Your task to perform on an android device: open wifi settings Image 0: 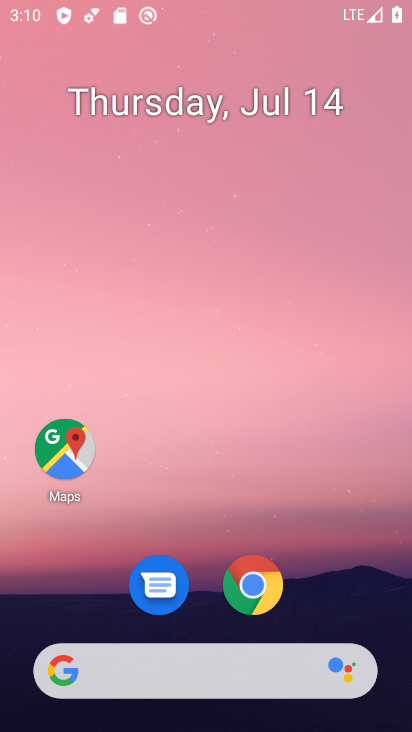
Step 0: drag from (352, 540) to (325, 198)
Your task to perform on an android device: open wifi settings Image 1: 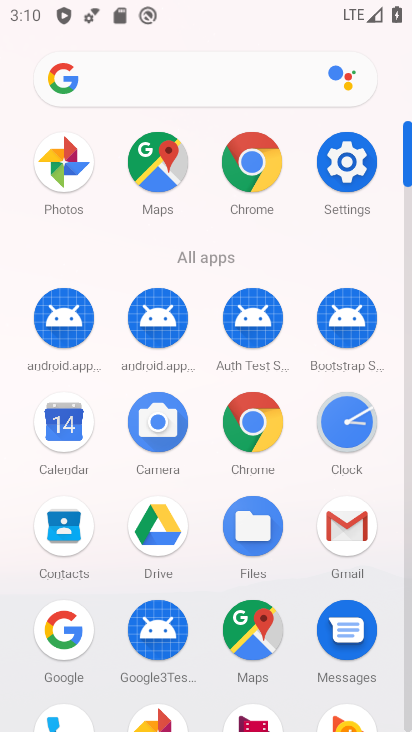
Step 1: click (348, 168)
Your task to perform on an android device: open wifi settings Image 2: 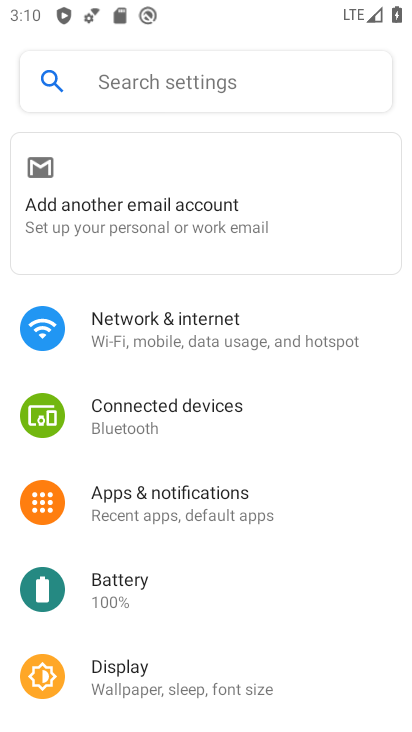
Step 2: click (159, 337)
Your task to perform on an android device: open wifi settings Image 3: 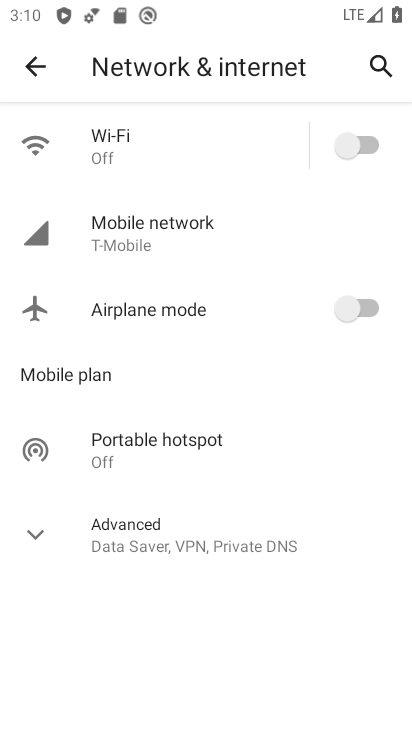
Step 3: click (112, 150)
Your task to perform on an android device: open wifi settings Image 4: 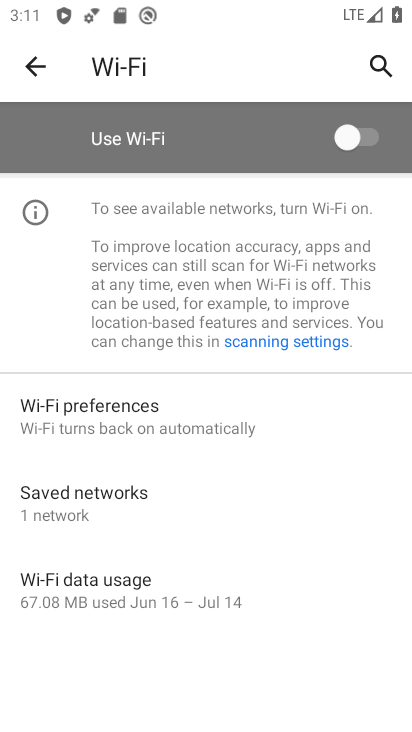
Step 4: task complete